Your task to perform on an android device: delete a single message in the gmail app Image 0: 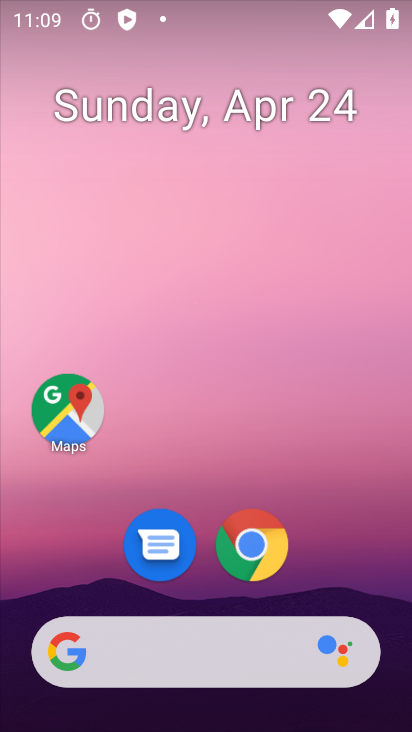
Step 0: drag from (242, 578) to (193, 157)
Your task to perform on an android device: delete a single message in the gmail app Image 1: 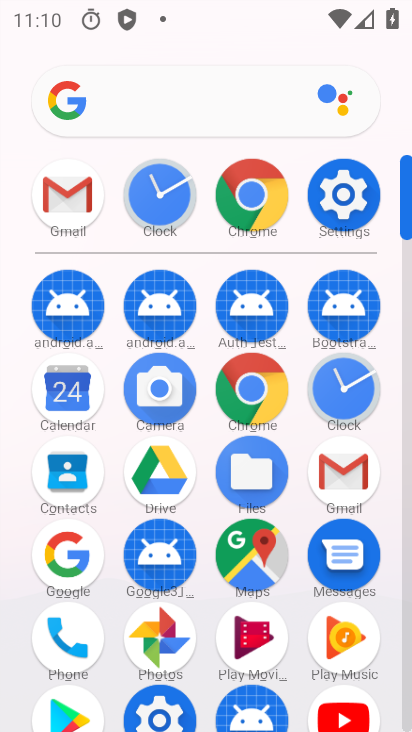
Step 1: click (66, 192)
Your task to perform on an android device: delete a single message in the gmail app Image 2: 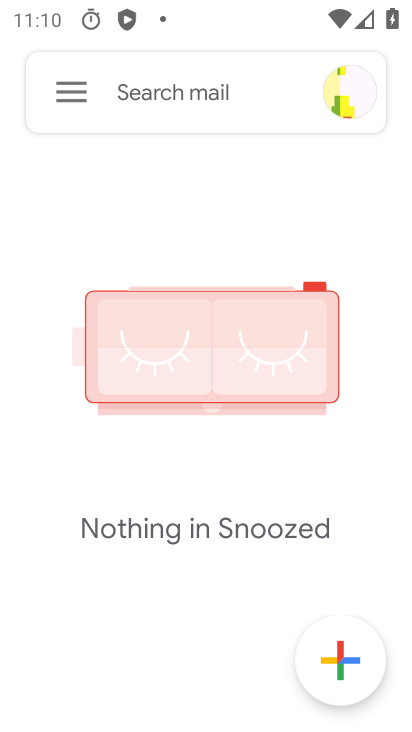
Step 2: click (37, 90)
Your task to perform on an android device: delete a single message in the gmail app Image 3: 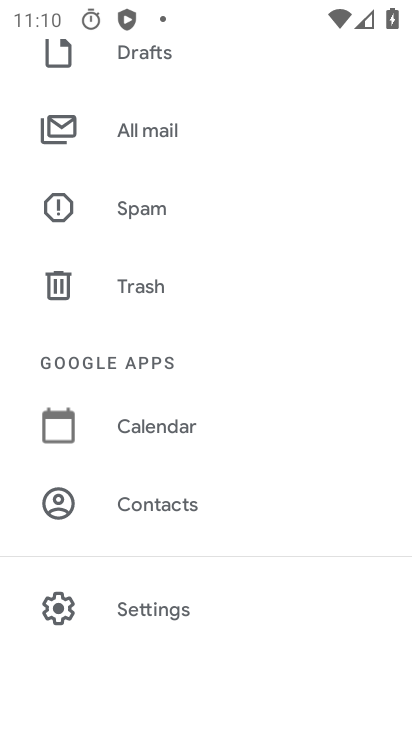
Step 3: click (164, 145)
Your task to perform on an android device: delete a single message in the gmail app Image 4: 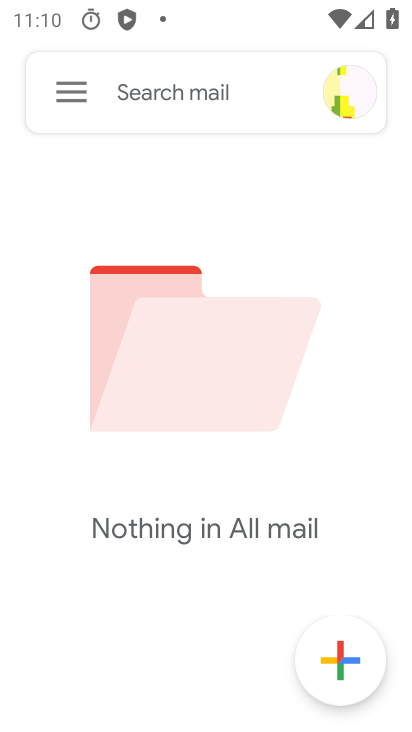
Step 4: task complete